Your task to perform on an android device: open app "Truecaller" (install if not already installed) Image 0: 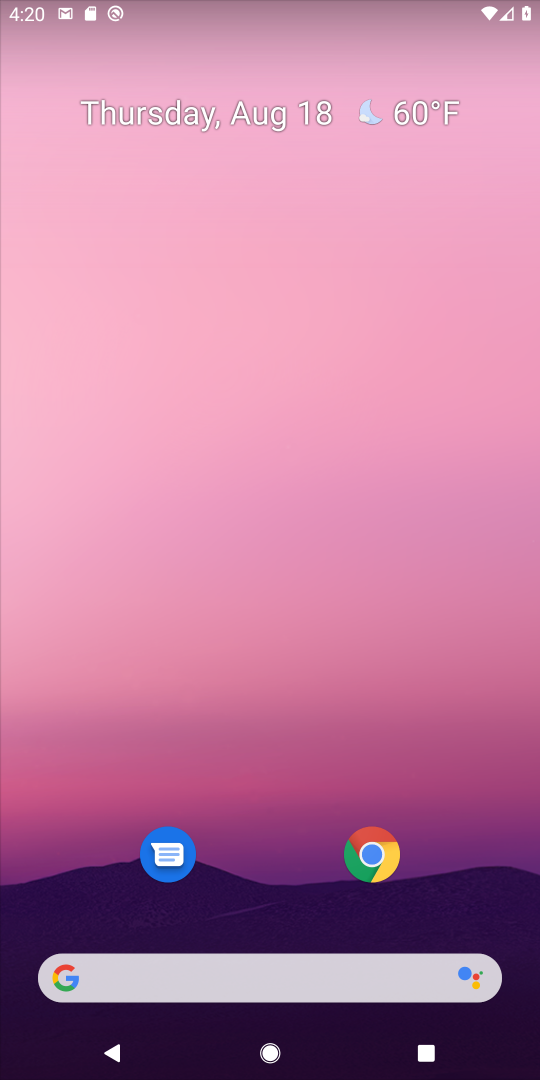
Step 0: drag from (259, 866) to (273, 25)
Your task to perform on an android device: open app "Truecaller" (install if not already installed) Image 1: 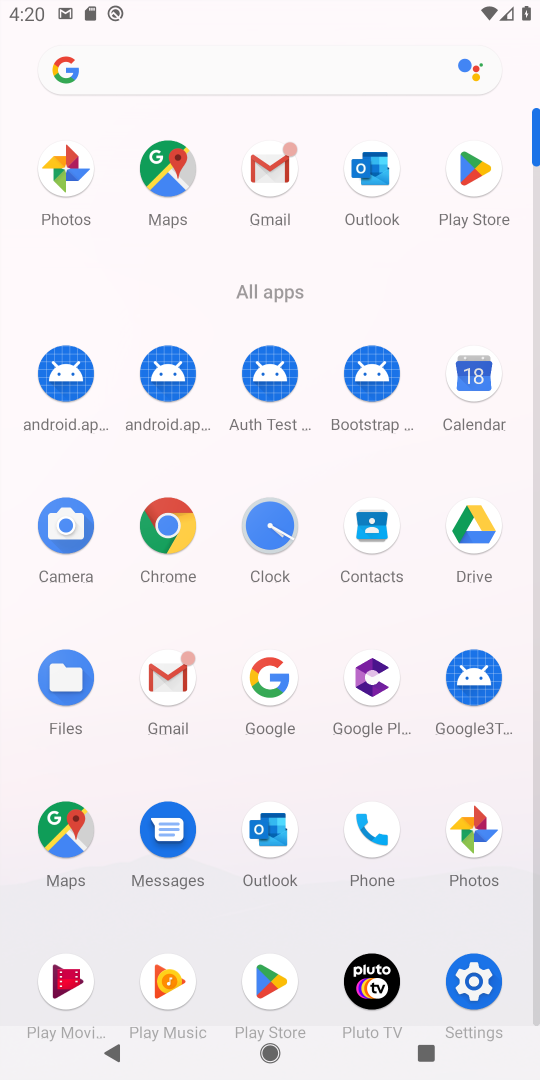
Step 1: click (476, 212)
Your task to perform on an android device: open app "Truecaller" (install if not already installed) Image 2: 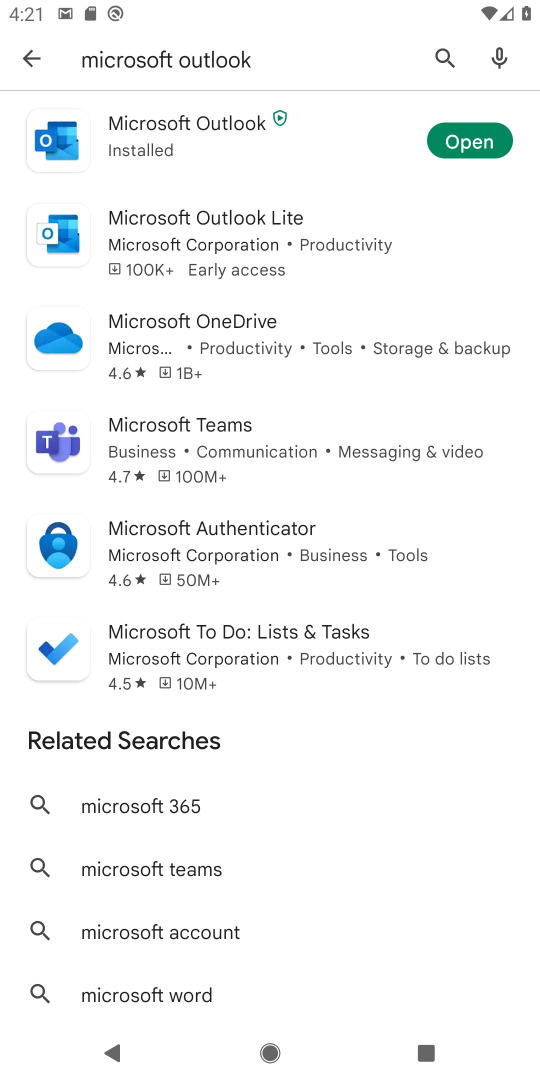
Step 2: click (29, 56)
Your task to perform on an android device: open app "Truecaller" (install if not already installed) Image 3: 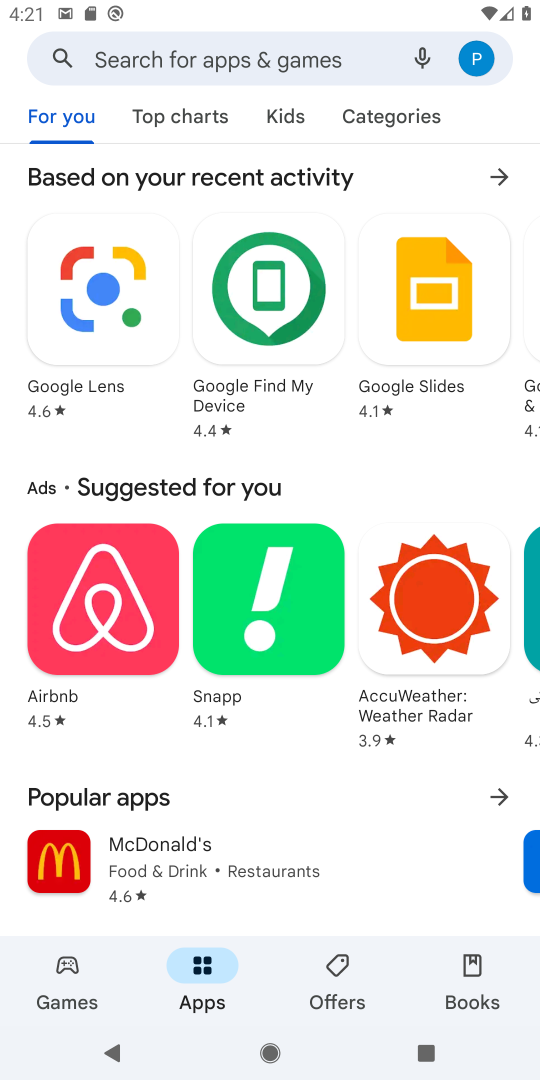
Step 3: click (184, 58)
Your task to perform on an android device: open app "Truecaller" (install if not already installed) Image 4: 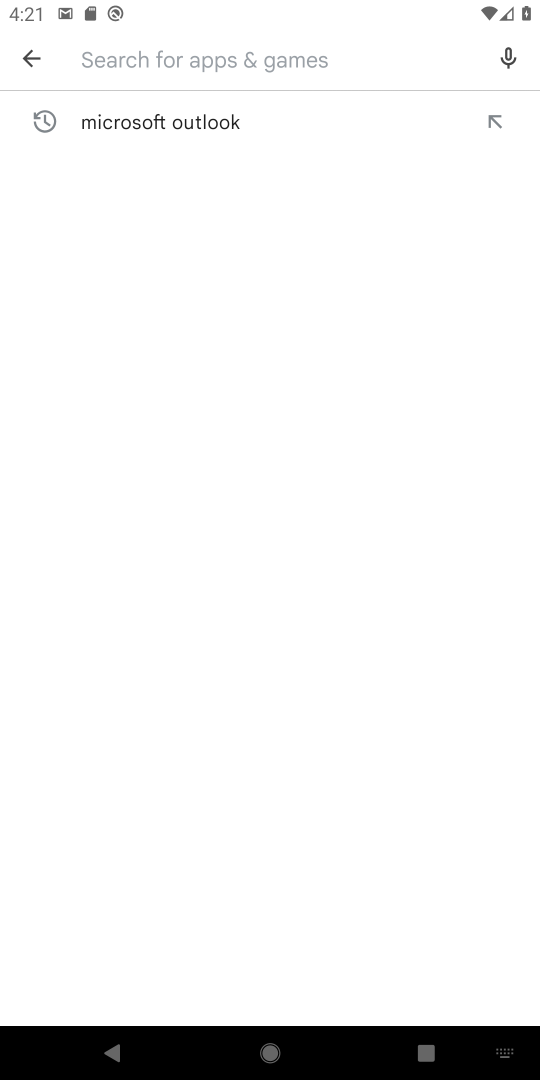
Step 4: type "Truecaller"
Your task to perform on an android device: open app "Truecaller" (install if not already installed) Image 5: 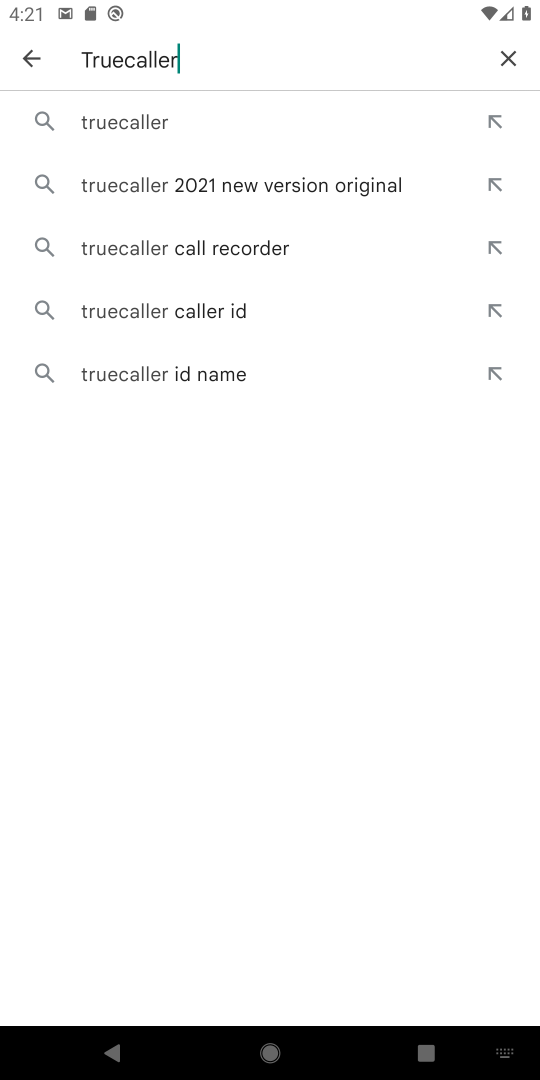
Step 5: click (140, 115)
Your task to perform on an android device: open app "Truecaller" (install if not already installed) Image 6: 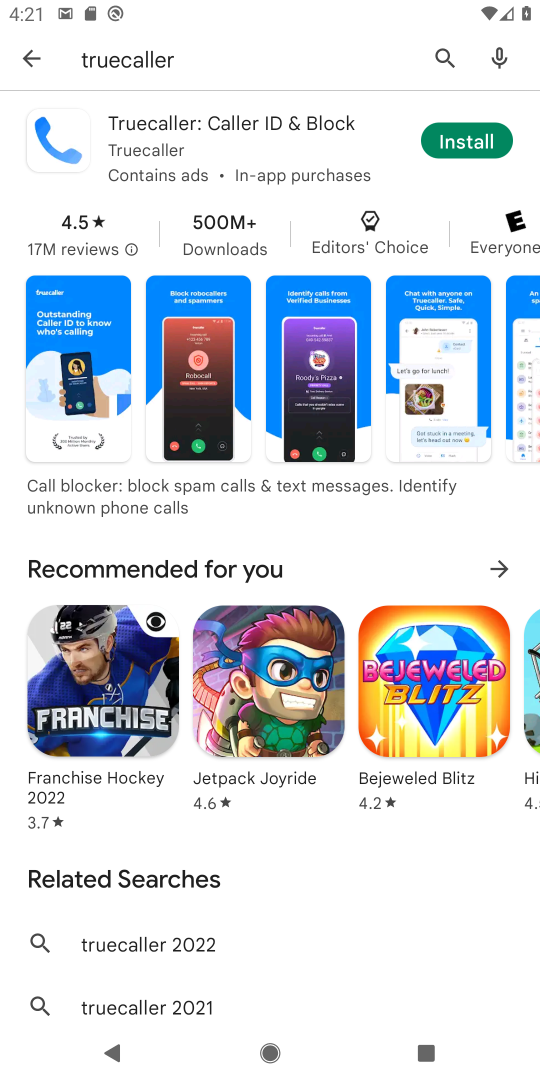
Step 6: click (474, 141)
Your task to perform on an android device: open app "Truecaller" (install if not already installed) Image 7: 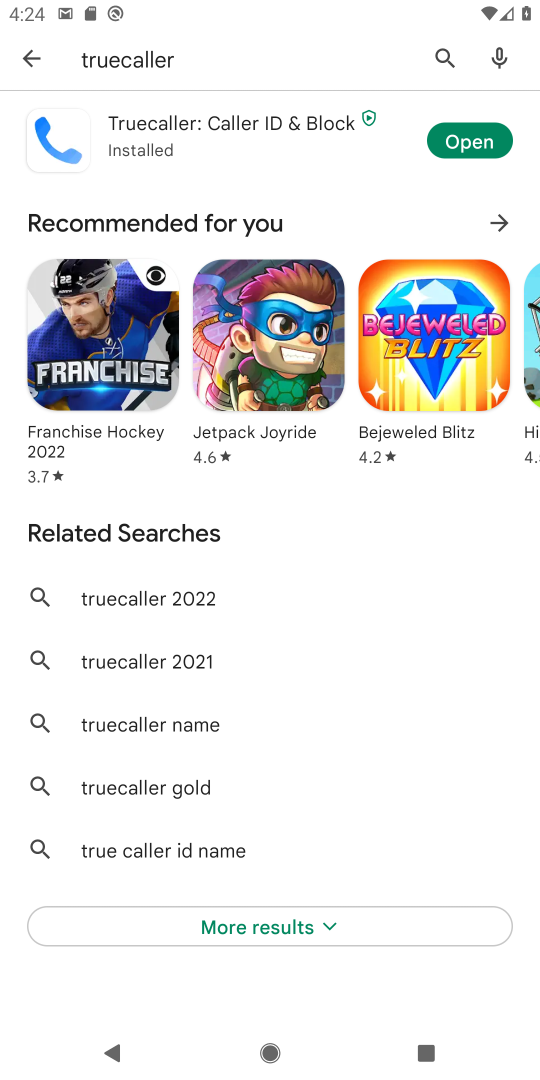
Step 7: click (475, 144)
Your task to perform on an android device: open app "Truecaller" (install if not already installed) Image 8: 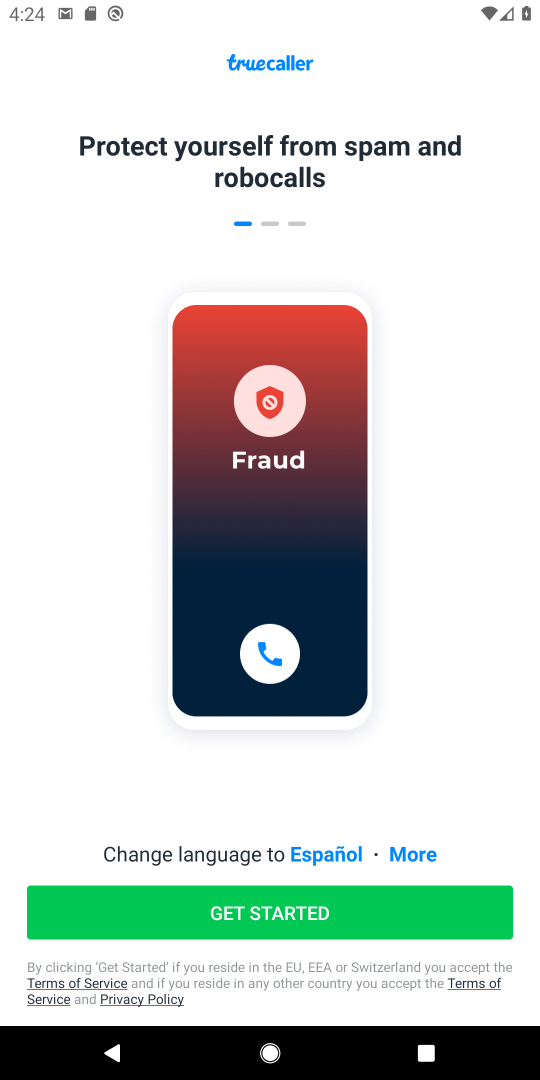
Step 8: task complete